Your task to perform on an android device: Clear the cart on walmart.com. Add "rayovac triple a" to the cart on walmart.com, then select checkout. Image 0: 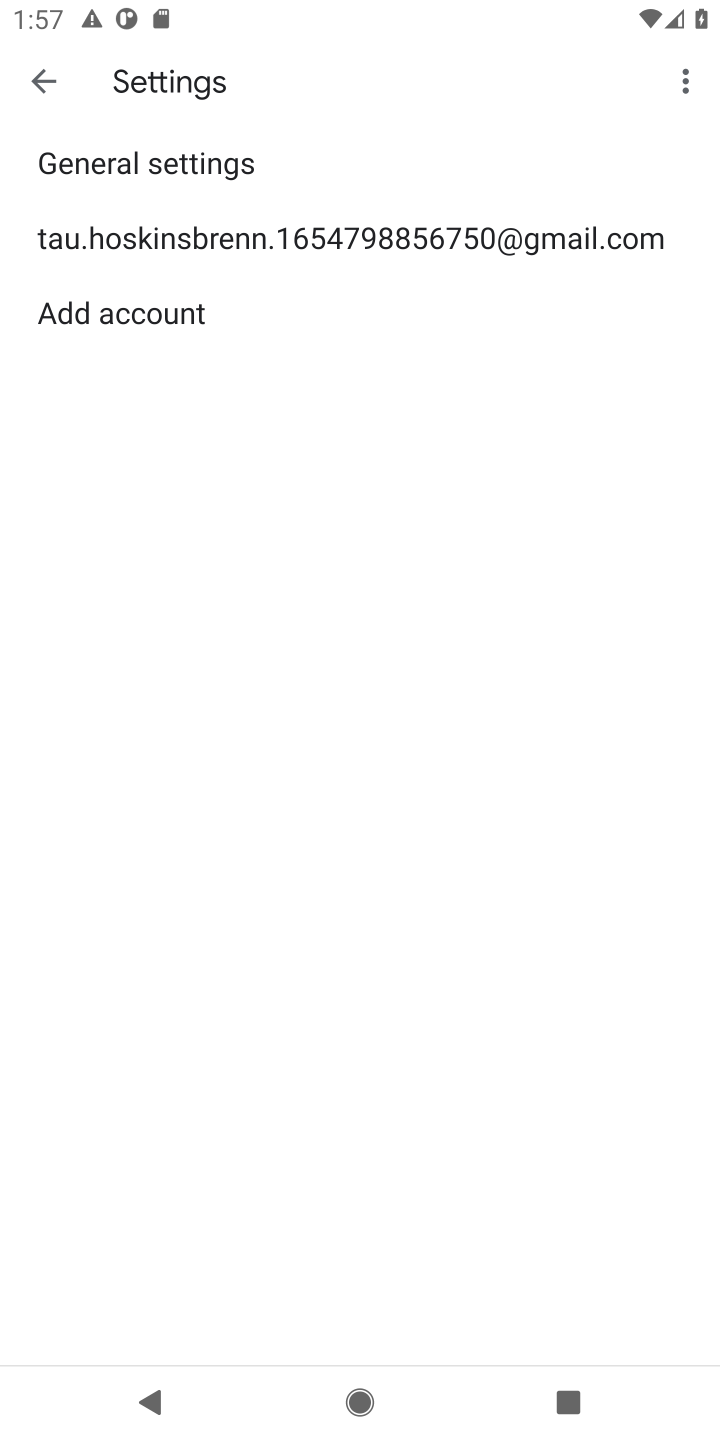
Step 0: press home button
Your task to perform on an android device: Clear the cart on walmart.com. Add "rayovac triple a" to the cart on walmart.com, then select checkout. Image 1: 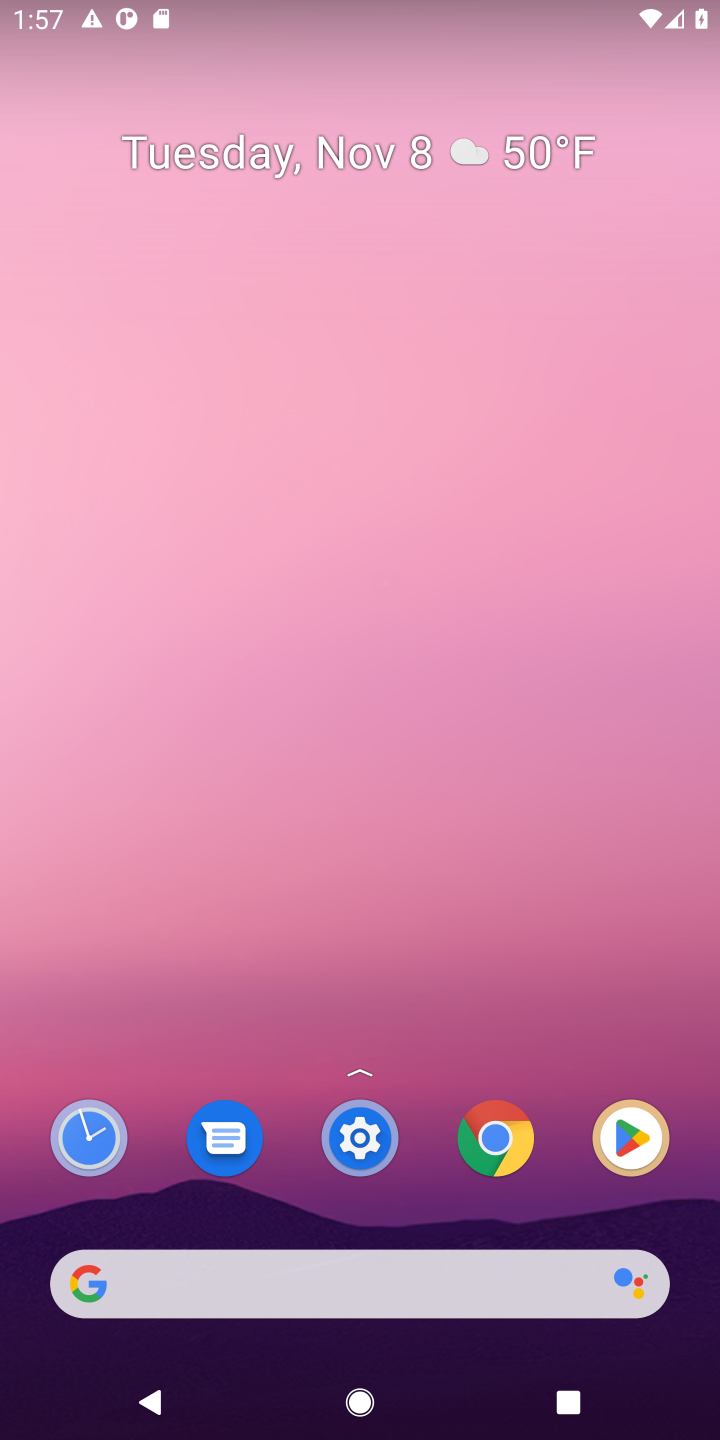
Step 1: click (409, 1297)
Your task to perform on an android device: Clear the cart on walmart.com. Add "rayovac triple a" to the cart on walmart.com, then select checkout. Image 2: 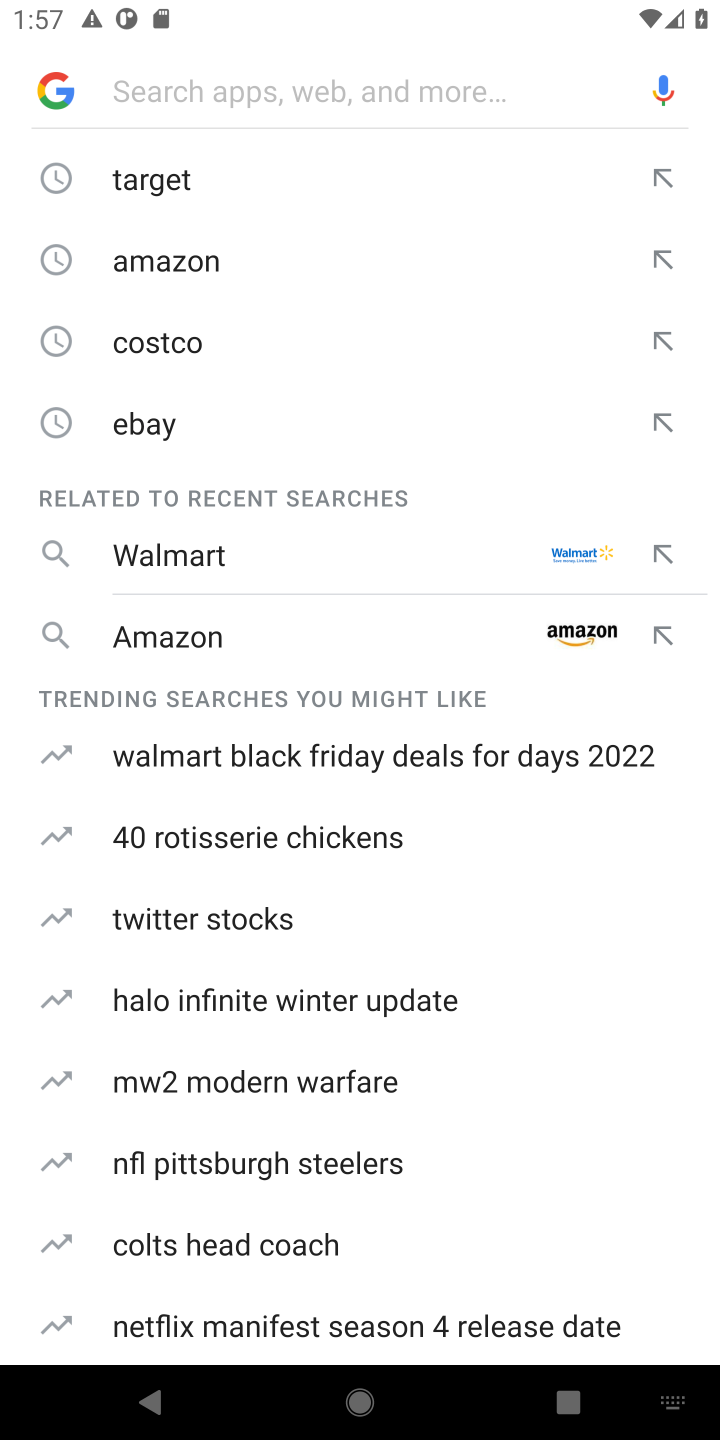
Step 2: type "walmart"
Your task to perform on an android device: Clear the cart on walmart.com. Add "rayovac triple a" to the cart on walmart.com, then select checkout. Image 3: 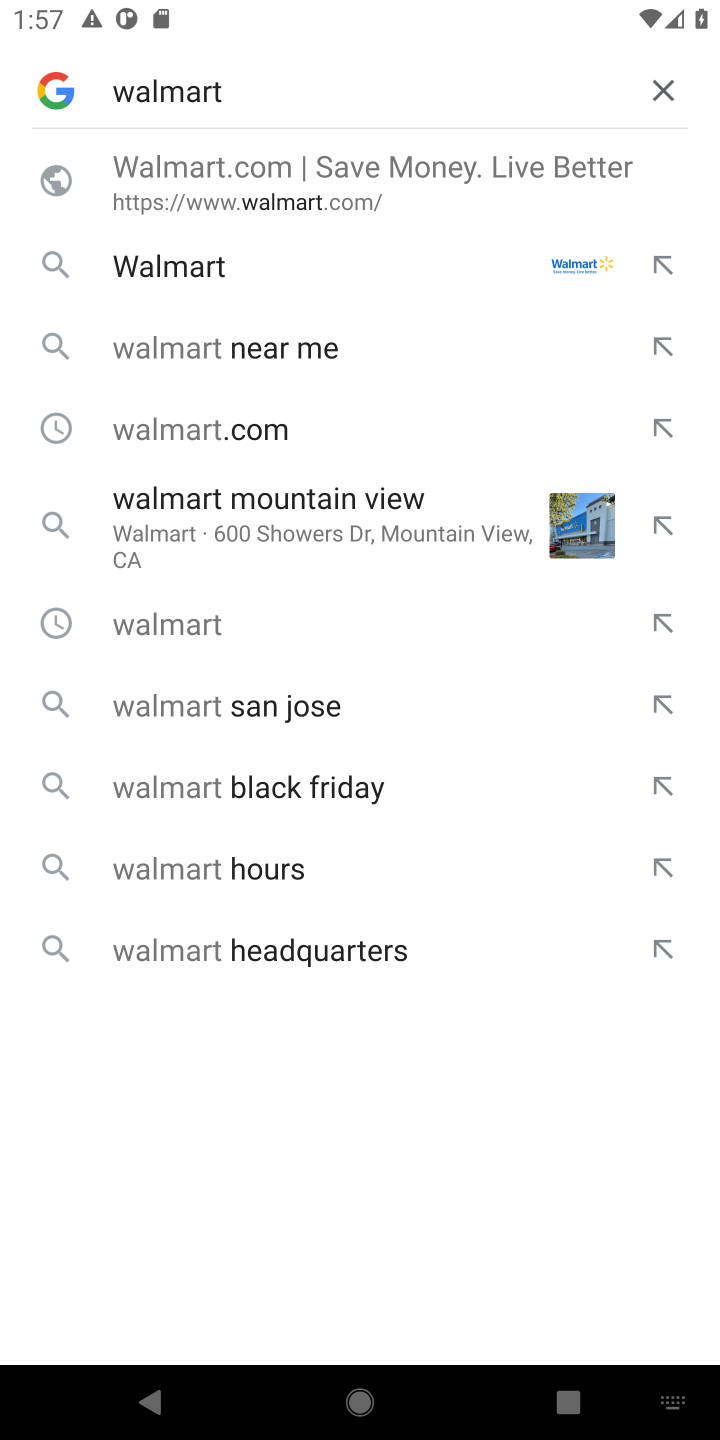
Step 3: click (247, 160)
Your task to perform on an android device: Clear the cart on walmart.com. Add "rayovac triple a" to the cart on walmart.com, then select checkout. Image 4: 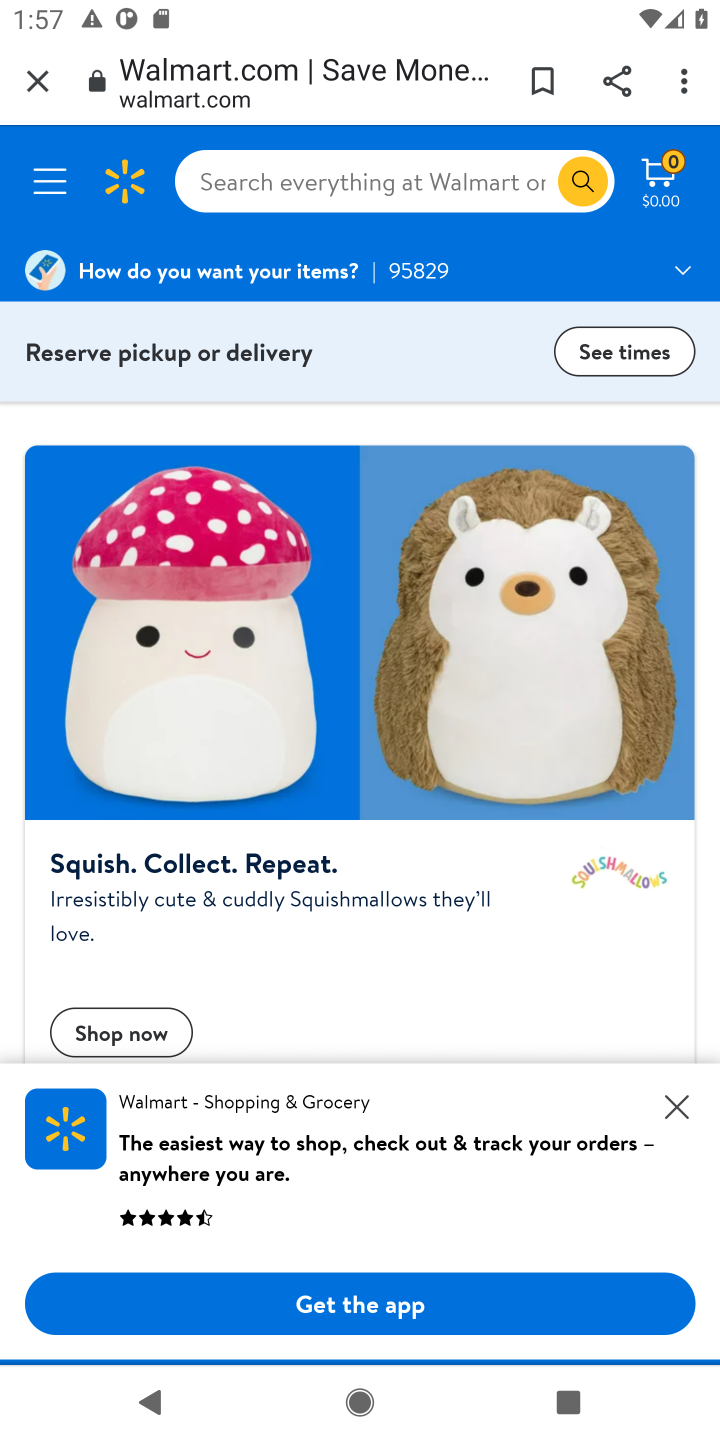
Step 4: task complete